Your task to perform on an android device: open a new tab in the chrome app Image 0: 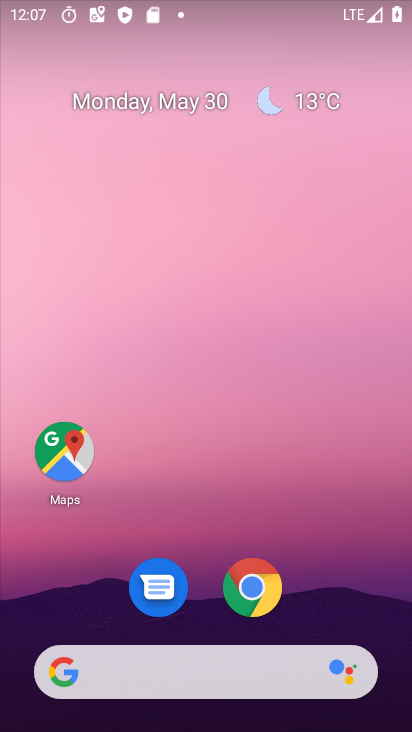
Step 0: click (247, 581)
Your task to perform on an android device: open a new tab in the chrome app Image 1: 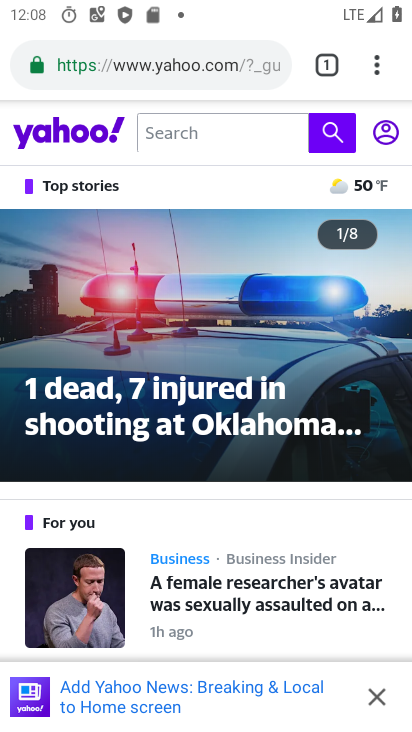
Step 1: task complete